Your task to perform on an android device: see sites visited before in the chrome app Image 0: 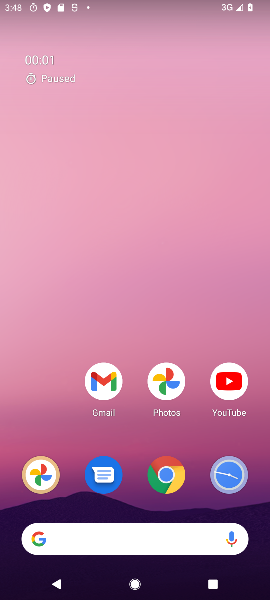
Step 0: click (160, 472)
Your task to perform on an android device: see sites visited before in the chrome app Image 1: 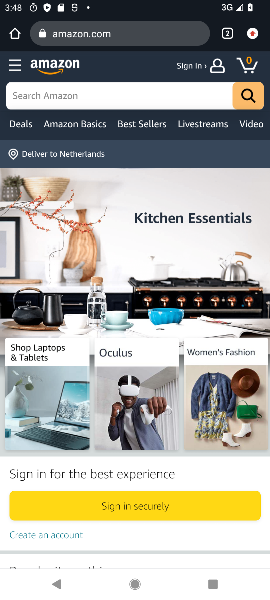
Step 1: click (252, 32)
Your task to perform on an android device: see sites visited before in the chrome app Image 2: 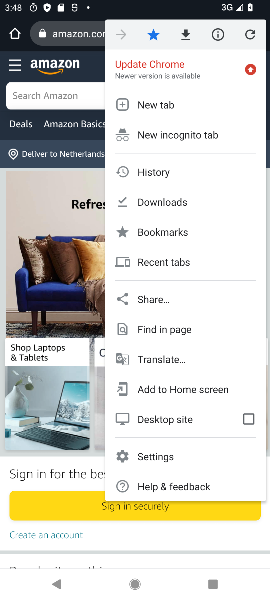
Step 2: click (250, 27)
Your task to perform on an android device: see sites visited before in the chrome app Image 3: 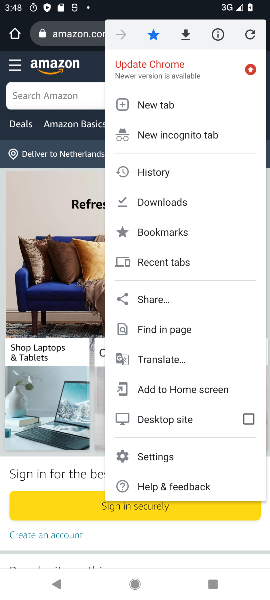
Step 3: click (252, 32)
Your task to perform on an android device: see sites visited before in the chrome app Image 4: 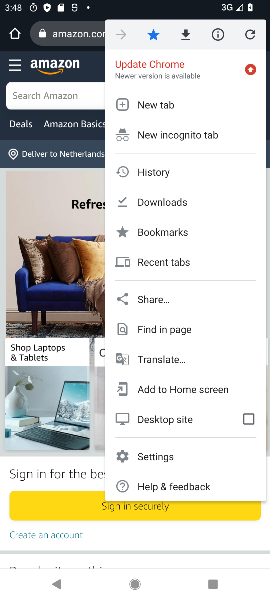
Step 4: click (150, 459)
Your task to perform on an android device: see sites visited before in the chrome app Image 5: 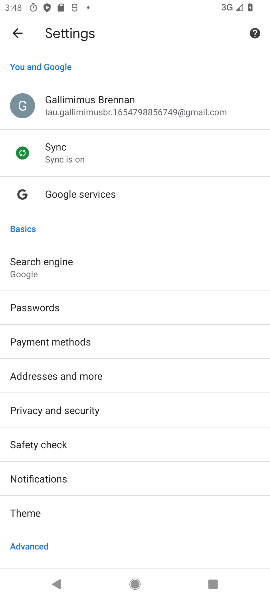
Step 5: drag from (236, 532) to (213, 323)
Your task to perform on an android device: see sites visited before in the chrome app Image 6: 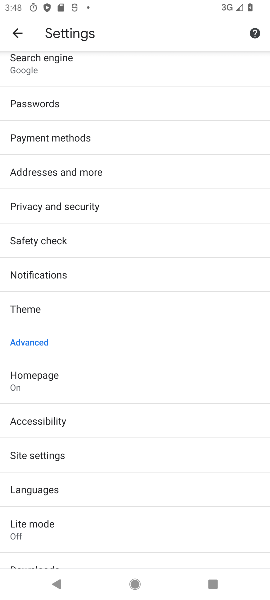
Step 6: click (34, 444)
Your task to perform on an android device: see sites visited before in the chrome app Image 7: 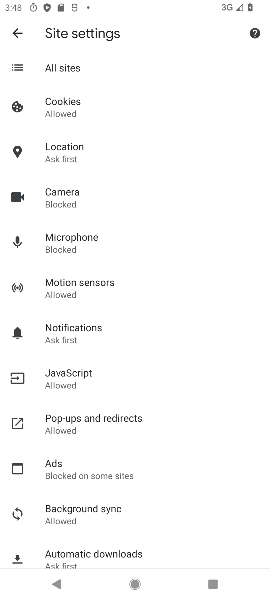
Step 7: task complete